Your task to perform on an android device: View the shopping cart on bestbuy.com. Add "asus rog" to the cart on bestbuy.com, then select checkout. Image 0: 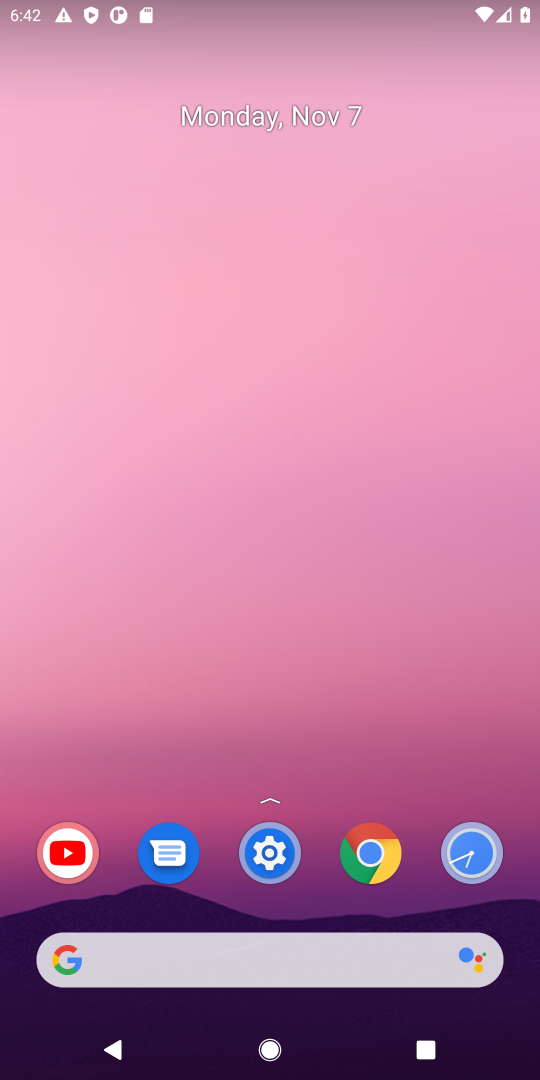
Step 0: click (371, 853)
Your task to perform on an android device: View the shopping cart on bestbuy.com. Add "asus rog" to the cart on bestbuy.com, then select checkout. Image 1: 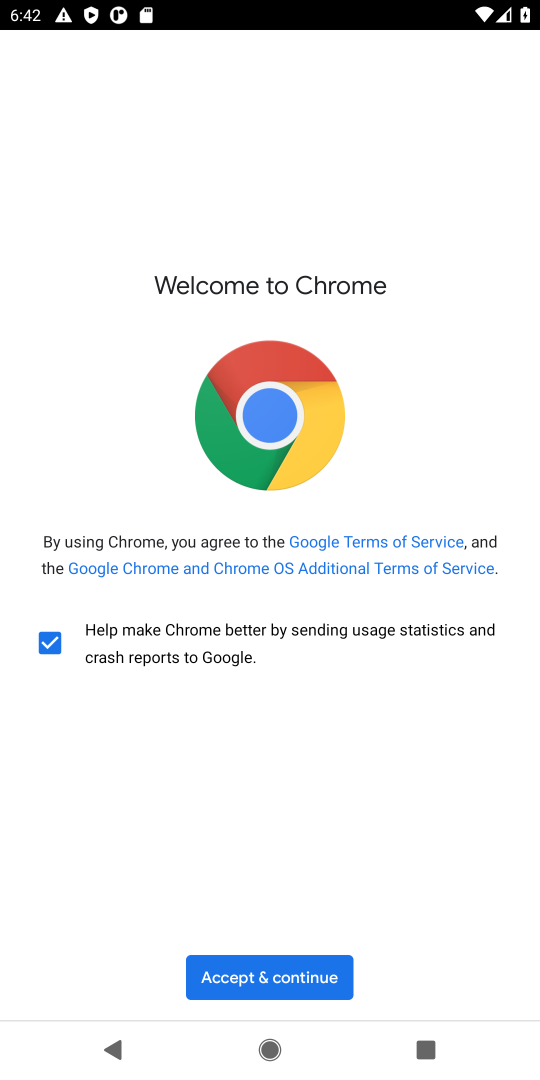
Step 1: click (275, 978)
Your task to perform on an android device: View the shopping cart on bestbuy.com. Add "asus rog" to the cart on bestbuy.com, then select checkout. Image 2: 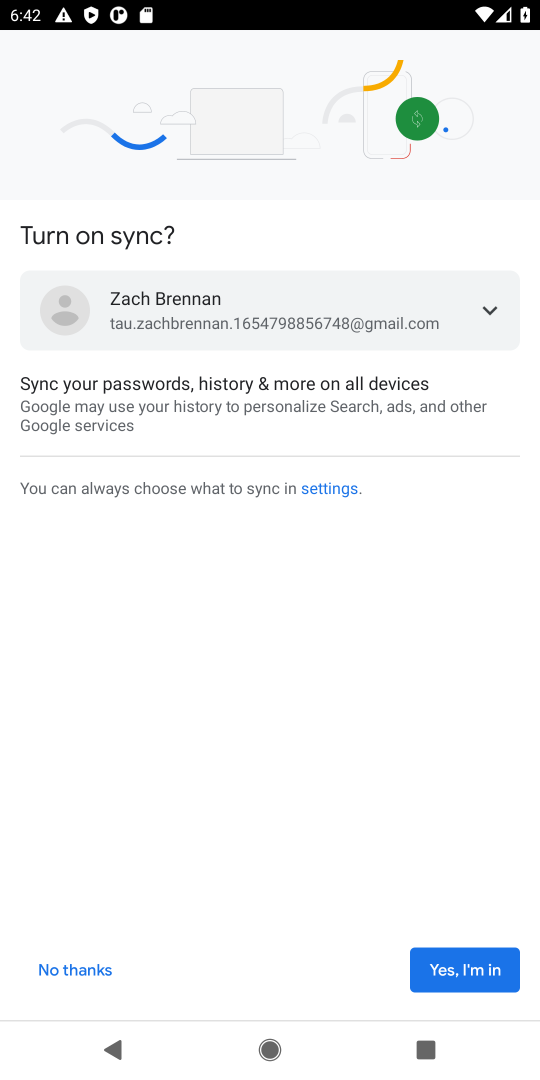
Step 2: click (85, 973)
Your task to perform on an android device: View the shopping cart on bestbuy.com. Add "asus rog" to the cart on bestbuy.com, then select checkout. Image 3: 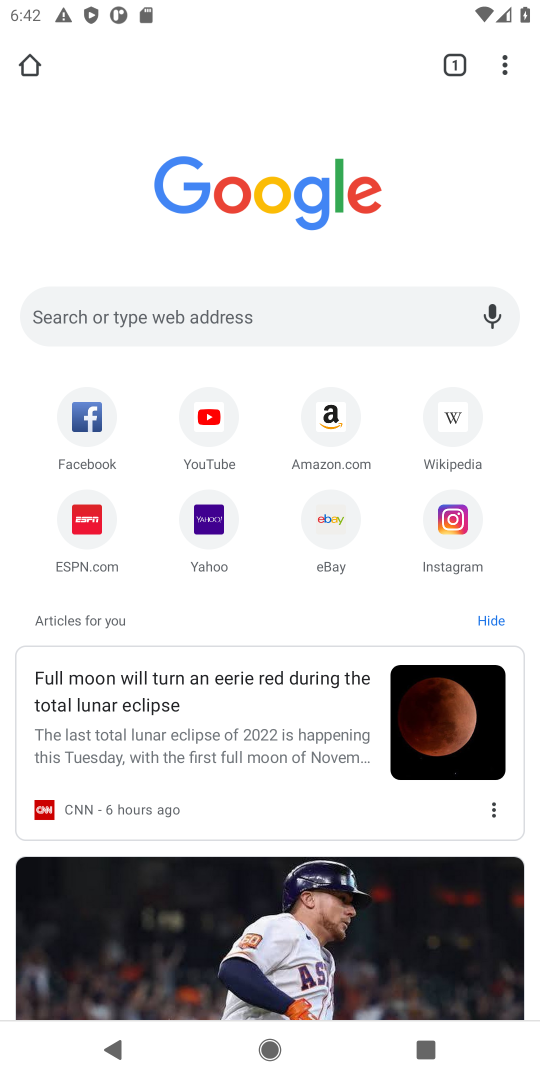
Step 3: click (199, 304)
Your task to perform on an android device: View the shopping cart on bestbuy.com. Add "asus rog" to the cart on bestbuy.com, then select checkout. Image 4: 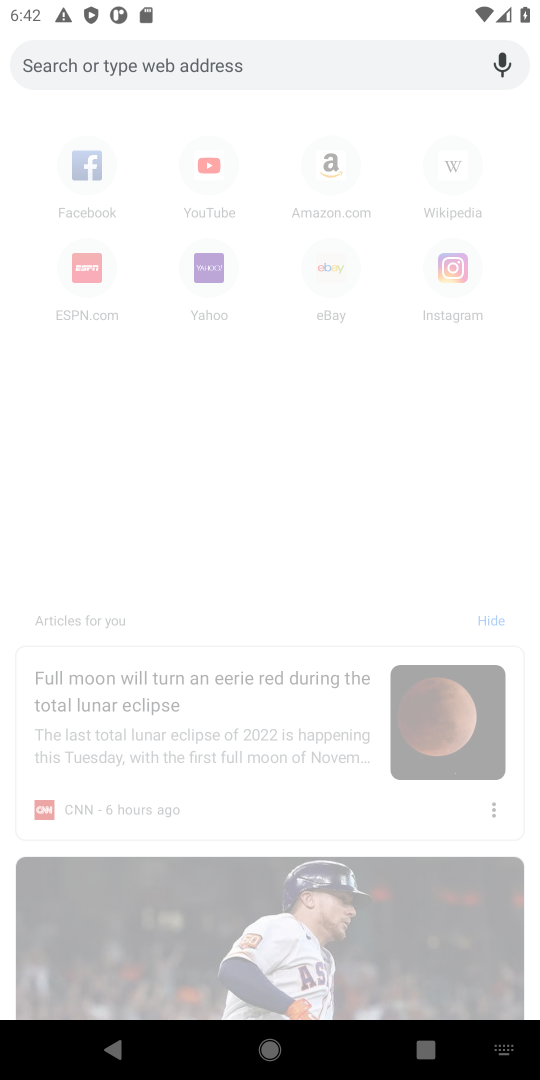
Step 4: type "bestbuy.com"
Your task to perform on an android device: View the shopping cart on bestbuy.com. Add "asus rog" to the cart on bestbuy.com, then select checkout. Image 5: 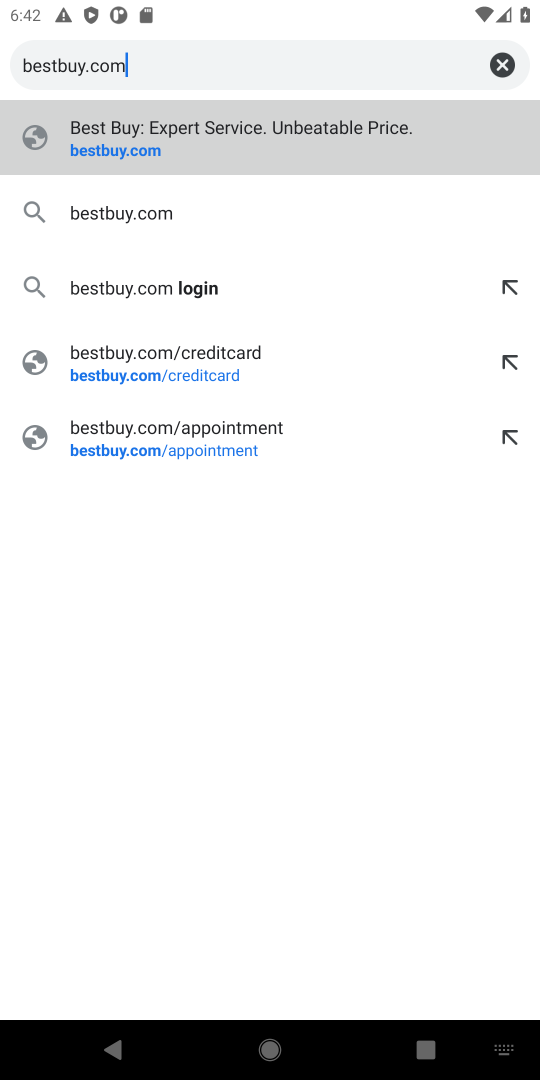
Step 5: click (332, 159)
Your task to perform on an android device: View the shopping cart on bestbuy.com. Add "asus rog" to the cart on bestbuy.com, then select checkout. Image 6: 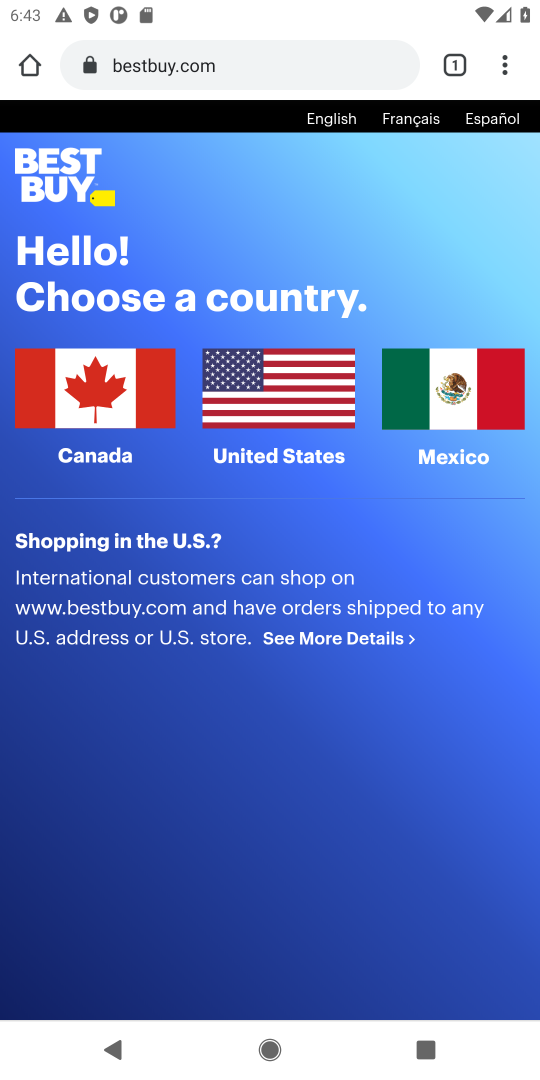
Step 6: click (231, 403)
Your task to perform on an android device: View the shopping cart on bestbuy.com. Add "asus rog" to the cart on bestbuy.com, then select checkout. Image 7: 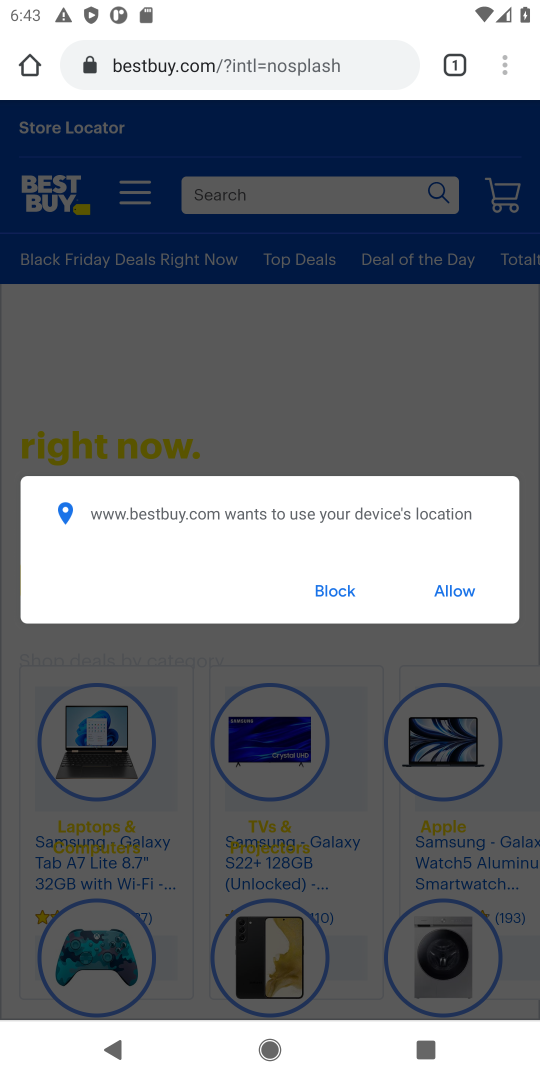
Step 7: click (335, 595)
Your task to perform on an android device: View the shopping cart on bestbuy.com. Add "asus rog" to the cart on bestbuy.com, then select checkout. Image 8: 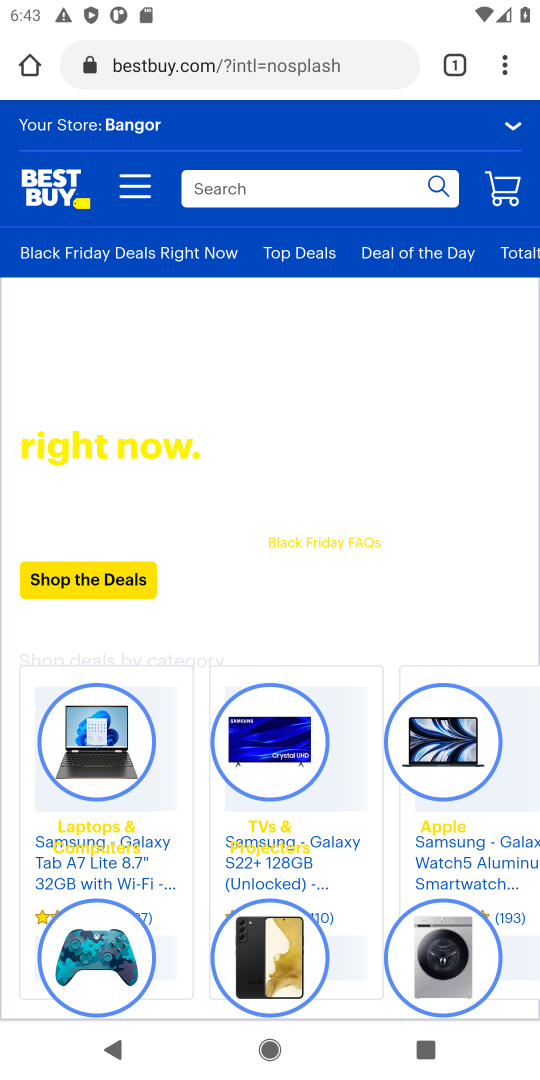
Step 8: click (289, 190)
Your task to perform on an android device: View the shopping cart on bestbuy.com. Add "asus rog" to the cart on bestbuy.com, then select checkout. Image 9: 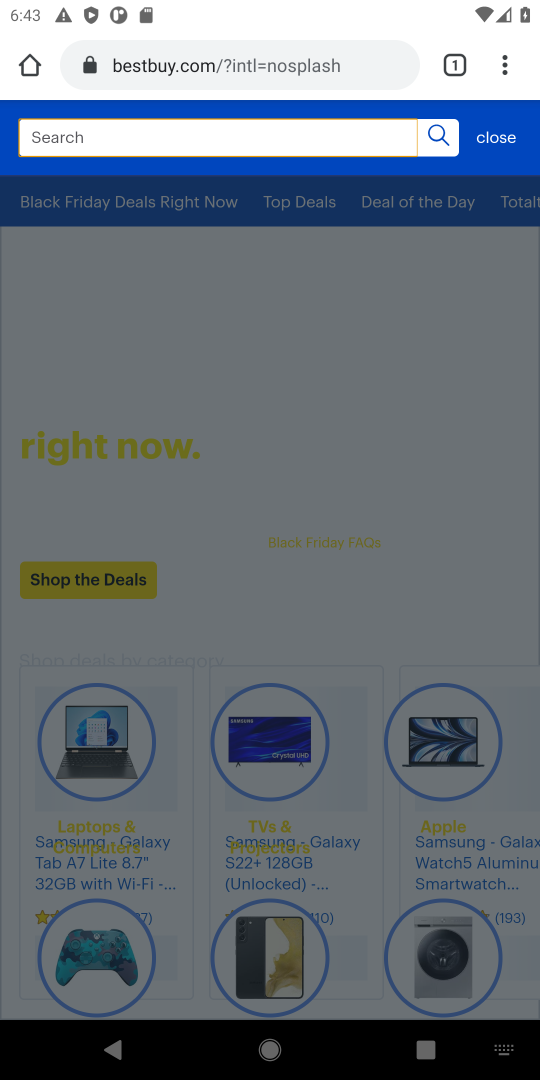
Step 9: type "asus rog"
Your task to perform on an android device: View the shopping cart on bestbuy.com. Add "asus rog" to the cart on bestbuy.com, then select checkout. Image 10: 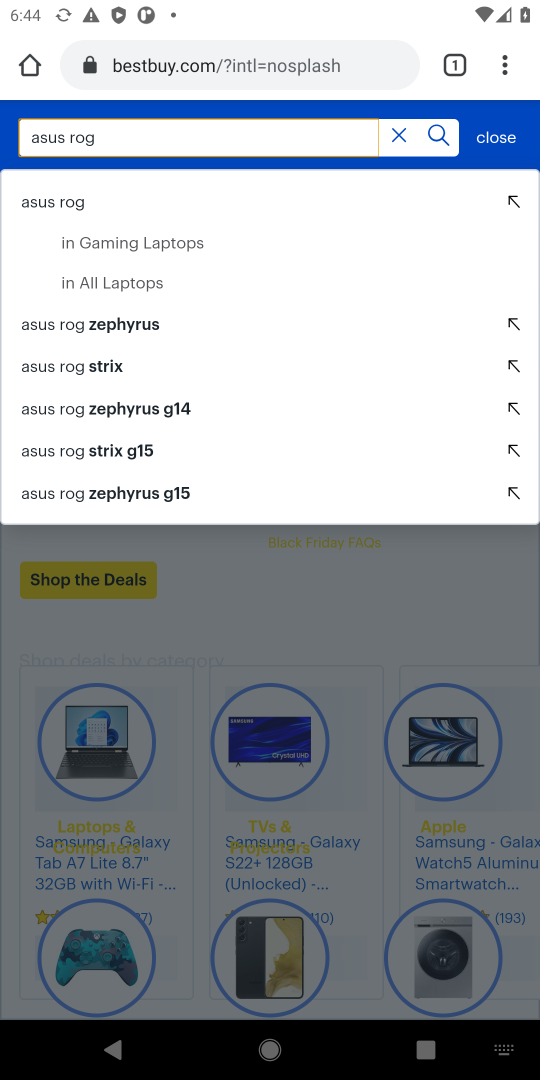
Step 10: press enter
Your task to perform on an android device: View the shopping cart on bestbuy.com. Add "asus rog" to the cart on bestbuy.com, then select checkout. Image 11: 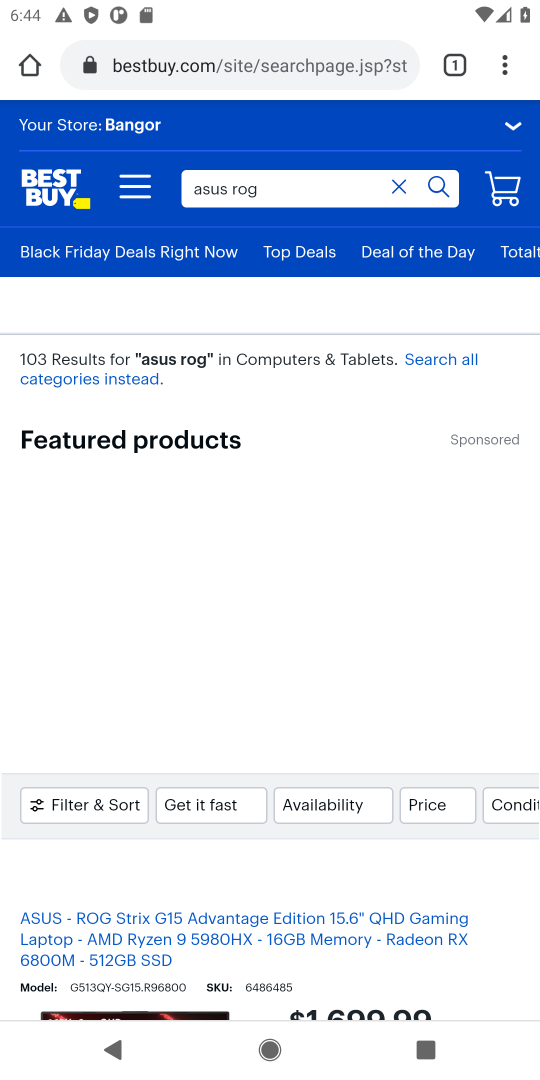
Step 11: press enter
Your task to perform on an android device: View the shopping cart on bestbuy.com. Add "asus rog" to the cart on bestbuy.com, then select checkout. Image 12: 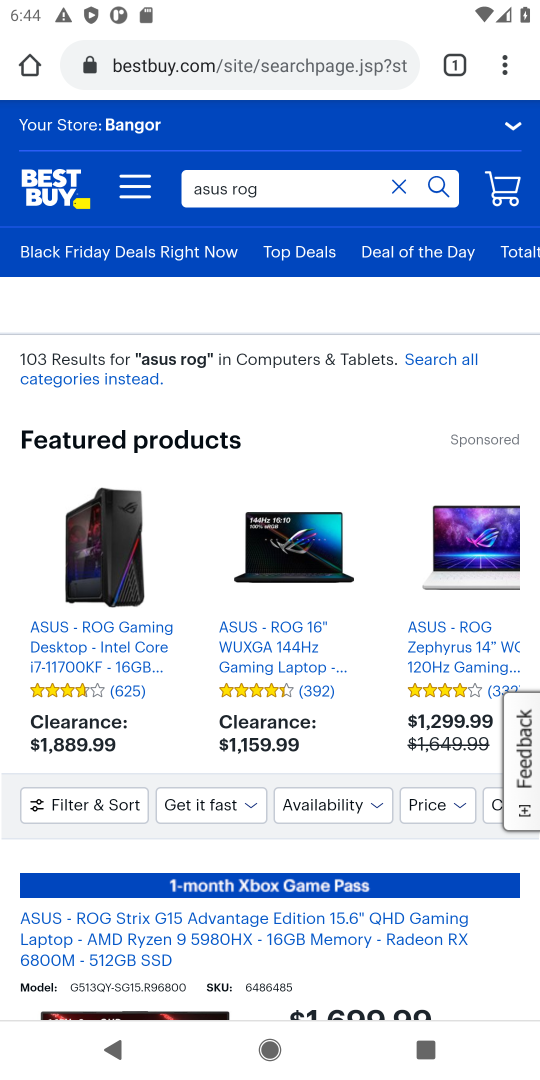
Step 12: drag from (289, 827) to (354, 413)
Your task to perform on an android device: View the shopping cart on bestbuy.com. Add "asus rog" to the cart on bestbuy.com, then select checkout. Image 13: 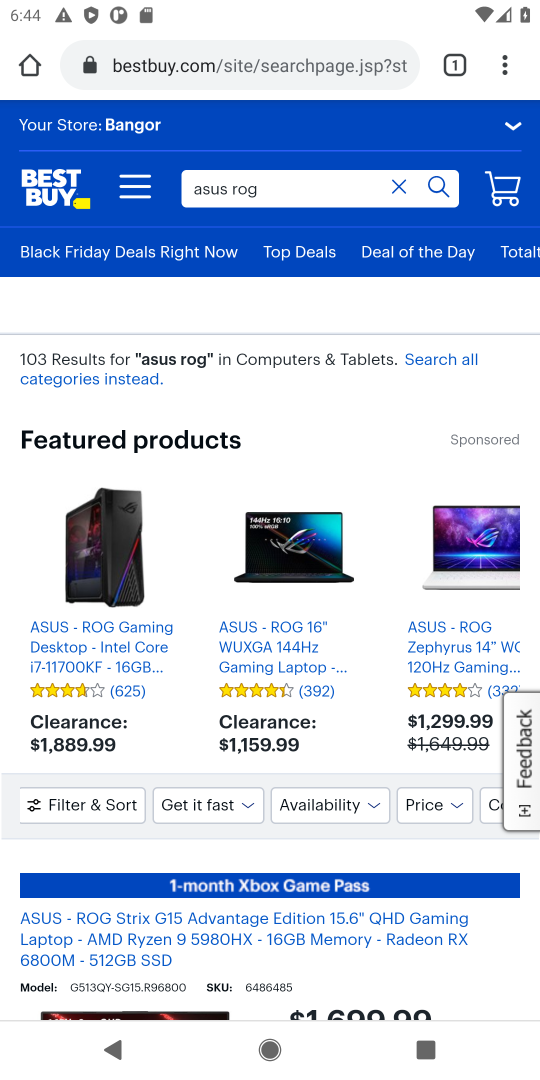
Step 13: drag from (350, 762) to (328, 426)
Your task to perform on an android device: View the shopping cart on bestbuy.com. Add "asus rog" to the cart on bestbuy.com, then select checkout. Image 14: 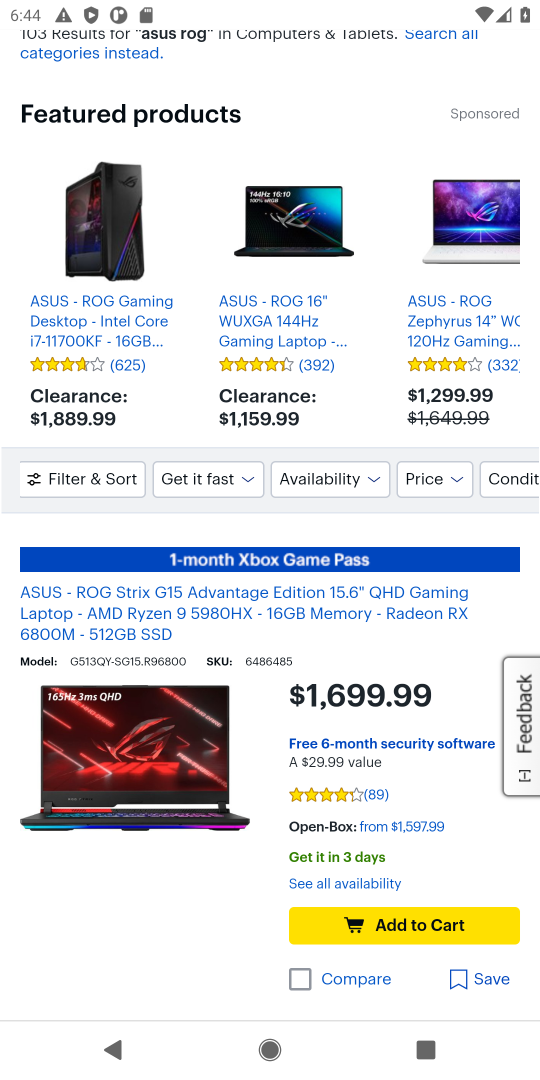
Step 14: click (358, 938)
Your task to perform on an android device: View the shopping cart on bestbuy.com. Add "asus rog" to the cart on bestbuy.com, then select checkout. Image 15: 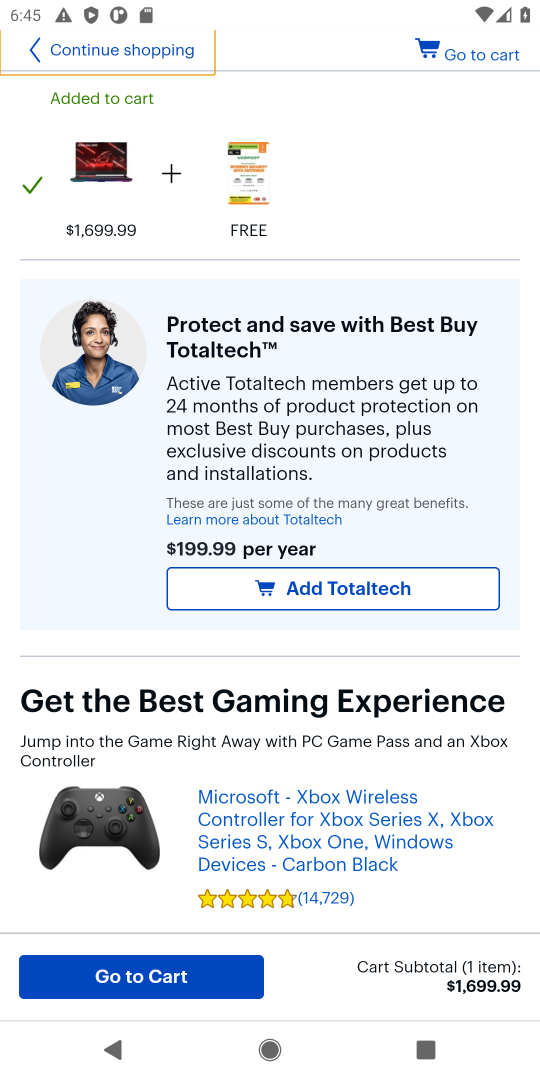
Step 15: click (157, 989)
Your task to perform on an android device: View the shopping cart on bestbuy.com. Add "asus rog" to the cart on bestbuy.com, then select checkout. Image 16: 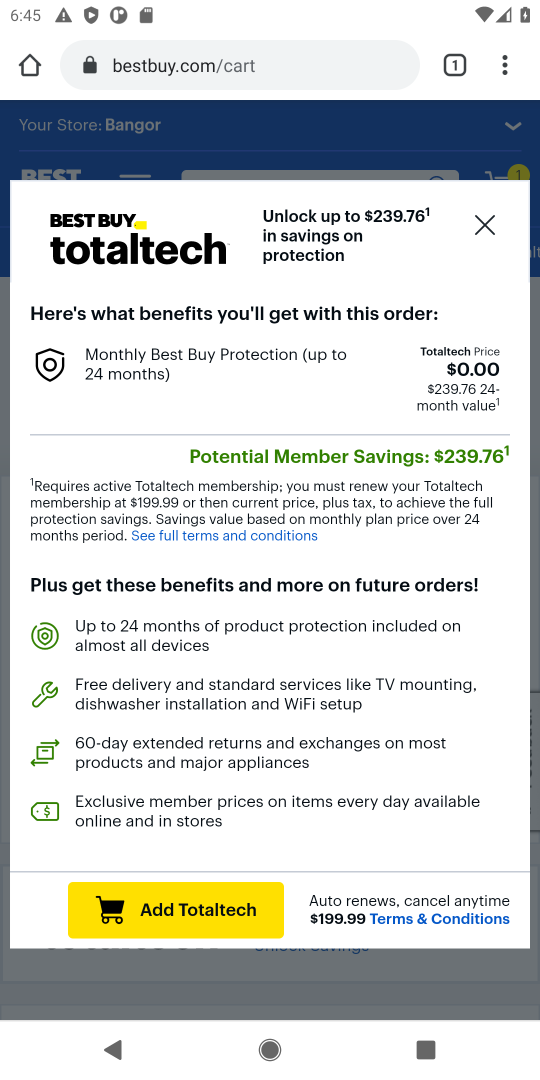
Step 16: click (176, 919)
Your task to perform on an android device: View the shopping cart on bestbuy.com. Add "asus rog" to the cart on bestbuy.com, then select checkout. Image 17: 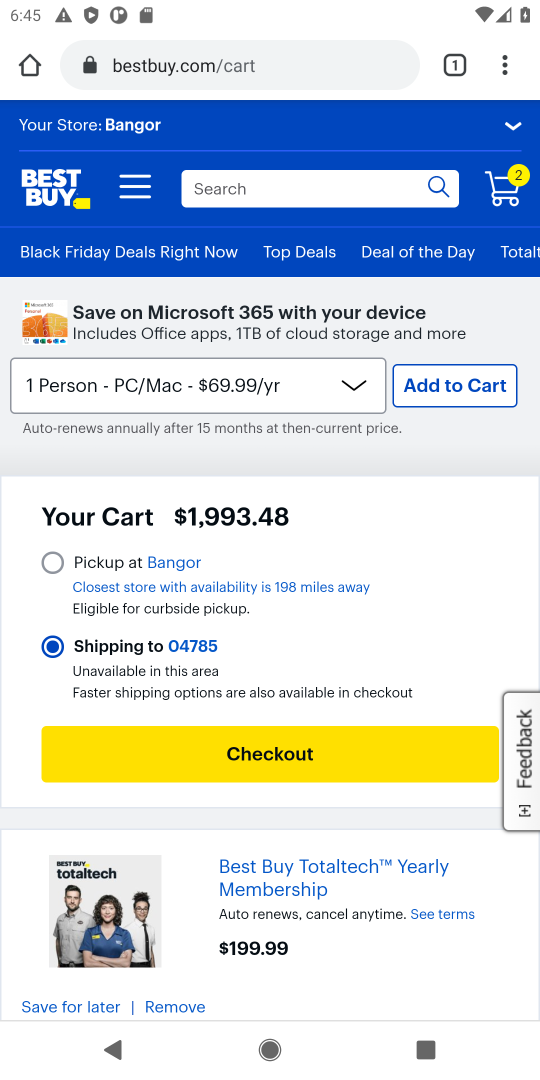
Step 17: click (244, 755)
Your task to perform on an android device: View the shopping cart on bestbuy.com. Add "asus rog" to the cart on bestbuy.com, then select checkout. Image 18: 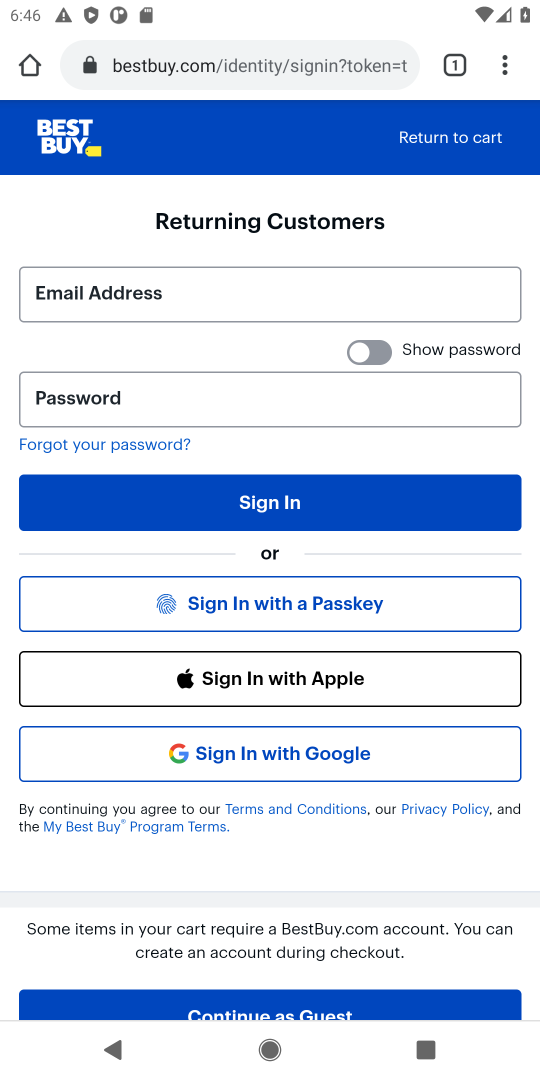
Step 18: task complete